Your task to perform on an android device: check out phone information Image 0: 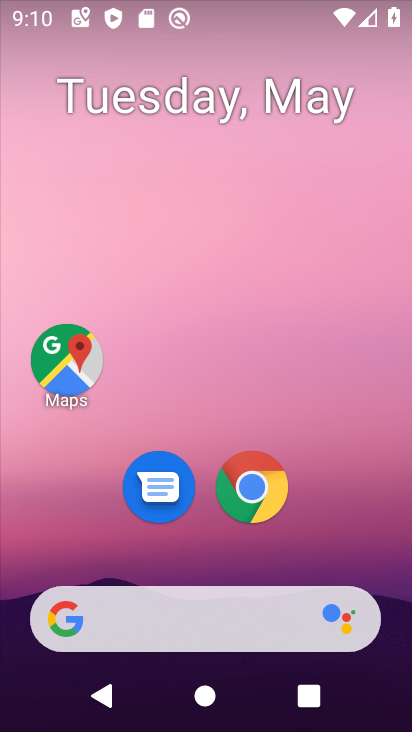
Step 0: drag from (380, 561) to (379, 229)
Your task to perform on an android device: check out phone information Image 1: 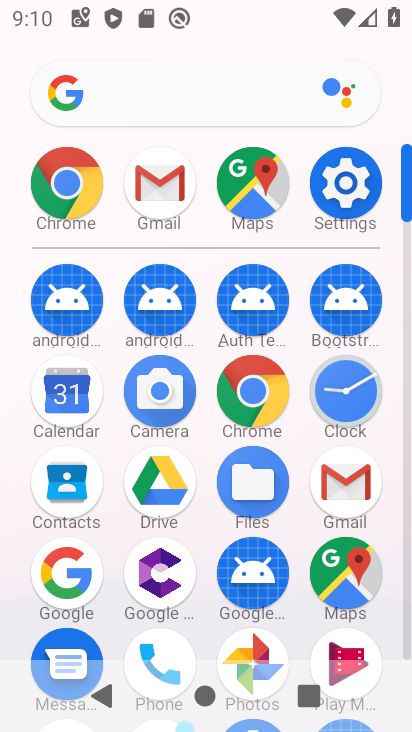
Step 1: drag from (387, 550) to (384, 309)
Your task to perform on an android device: check out phone information Image 2: 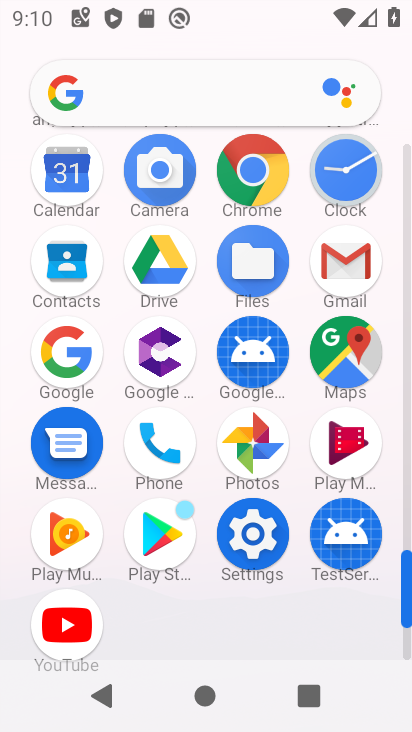
Step 2: click (171, 453)
Your task to perform on an android device: check out phone information Image 3: 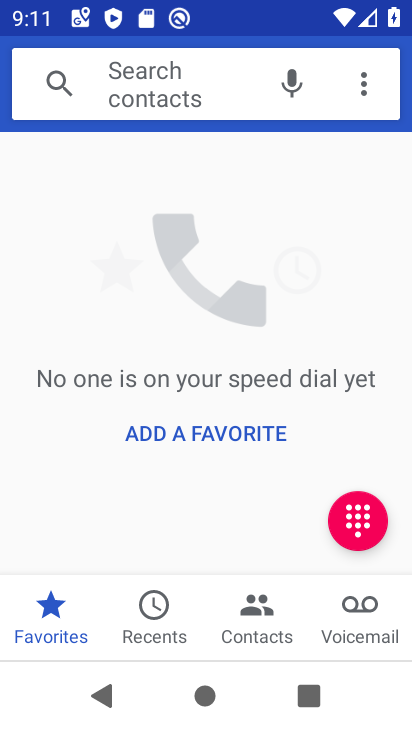
Step 3: click (163, 620)
Your task to perform on an android device: check out phone information Image 4: 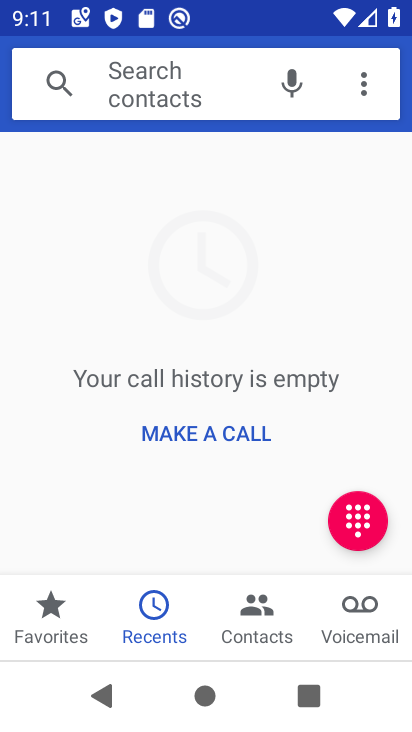
Step 4: task complete